Your task to perform on an android device: Open calendar and show me the fourth week of next month Image 0: 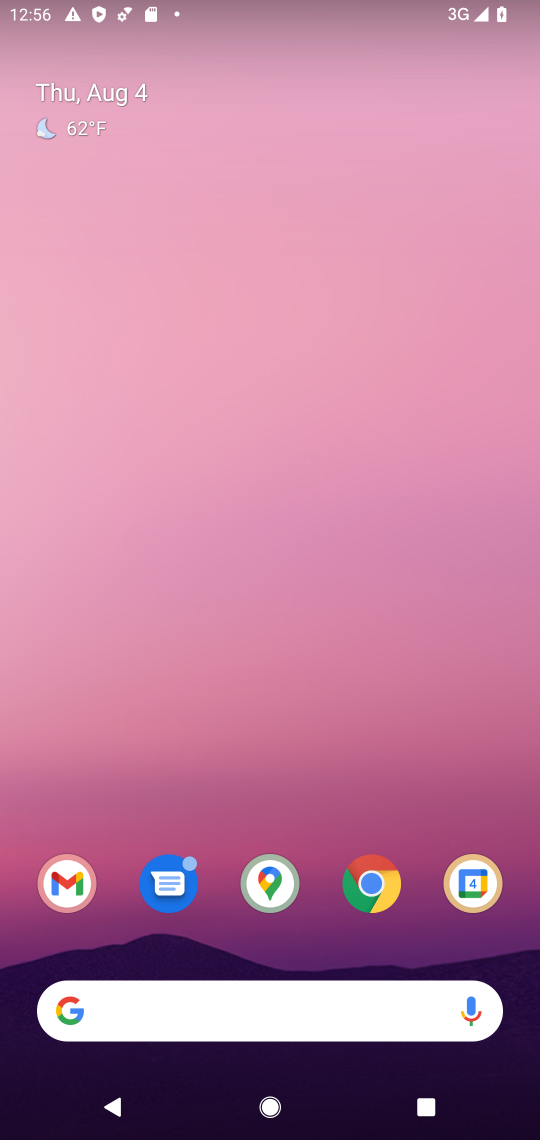
Step 0: drag from (287, 928) to (322, 422)
Your task to perform on an android device: Open calendar and show me the fourth week of next month Image 1: 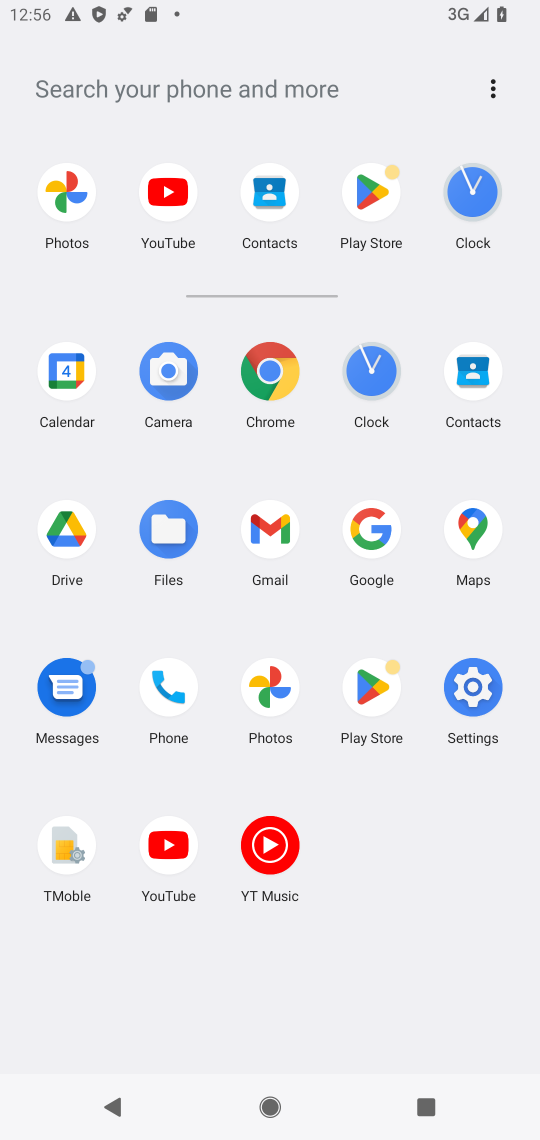
Step 1: click (63, 377)
Your task to perform on an android device: Open calendar and show me the fourth week of next month Image 2: 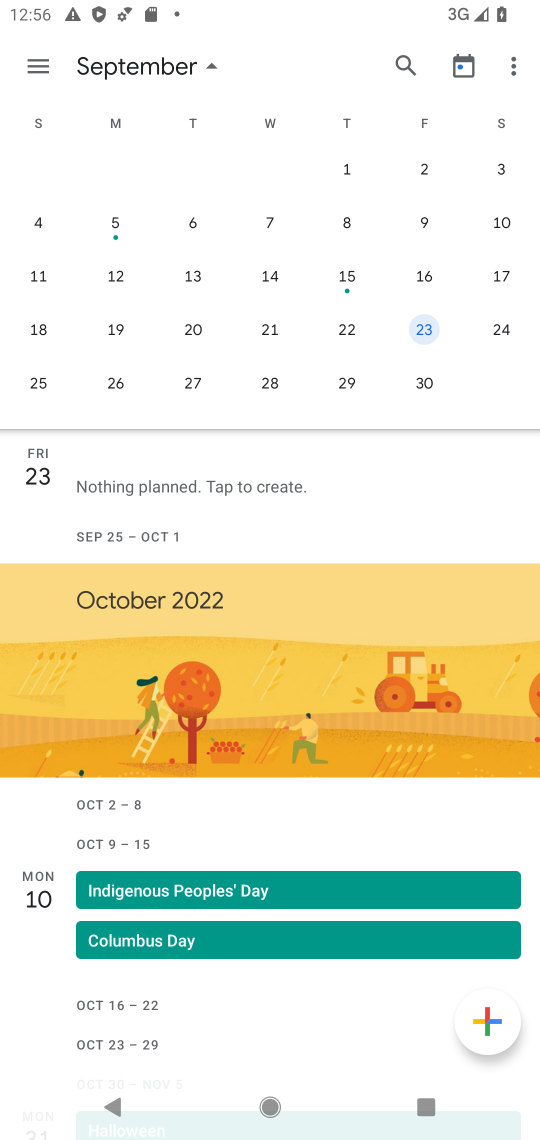
Step 2: drag from (453, 329) to (45, 321)
Your task to perform on an android device: Open calendar and show me the fourth week of next month Image 3: 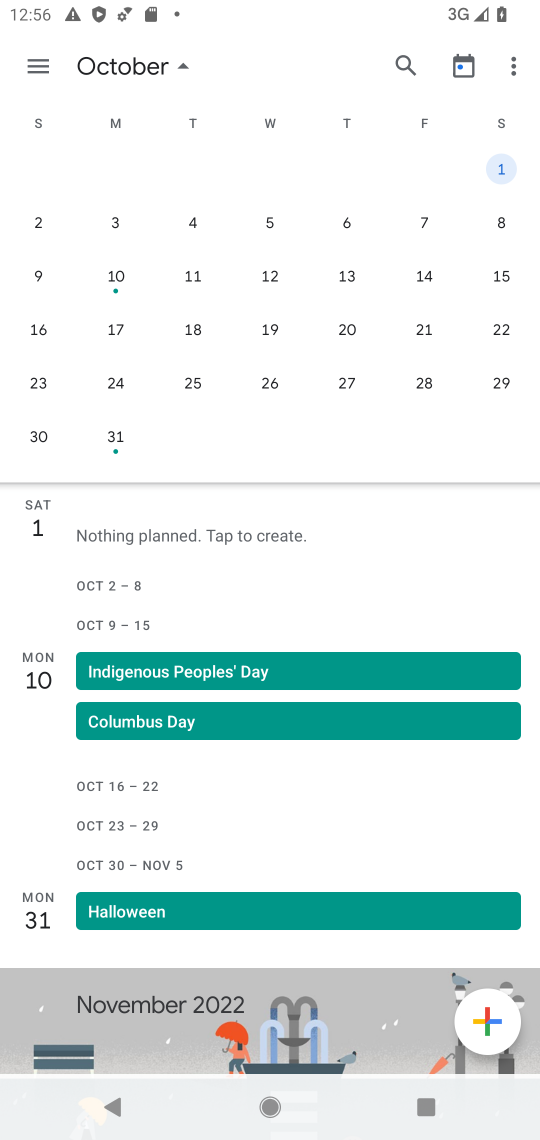
Step 3: drag from (189, 342) to (537, 310)
Your task to perform on an android device: Open calendar and show me the fourth week of next month Image 4: 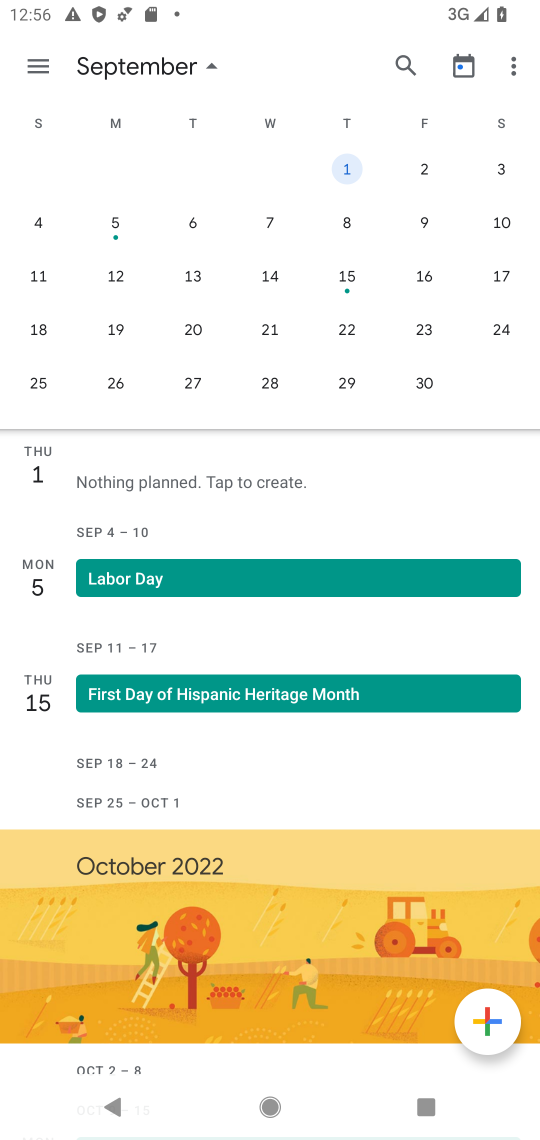
Step 4: click (344, 326)
Your task to perform on an android device: Open calendar and show me the fourth week of next month Image 5: 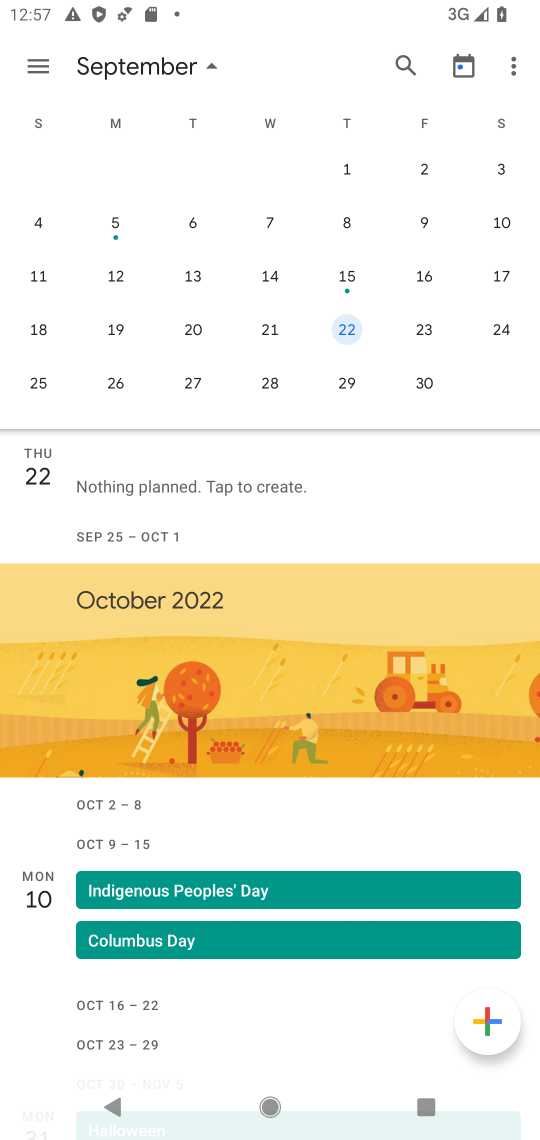
Step 5: click (421, 334)
Your task to perform on an android device: Open calendar and show me the fourth week of next month Image 6: 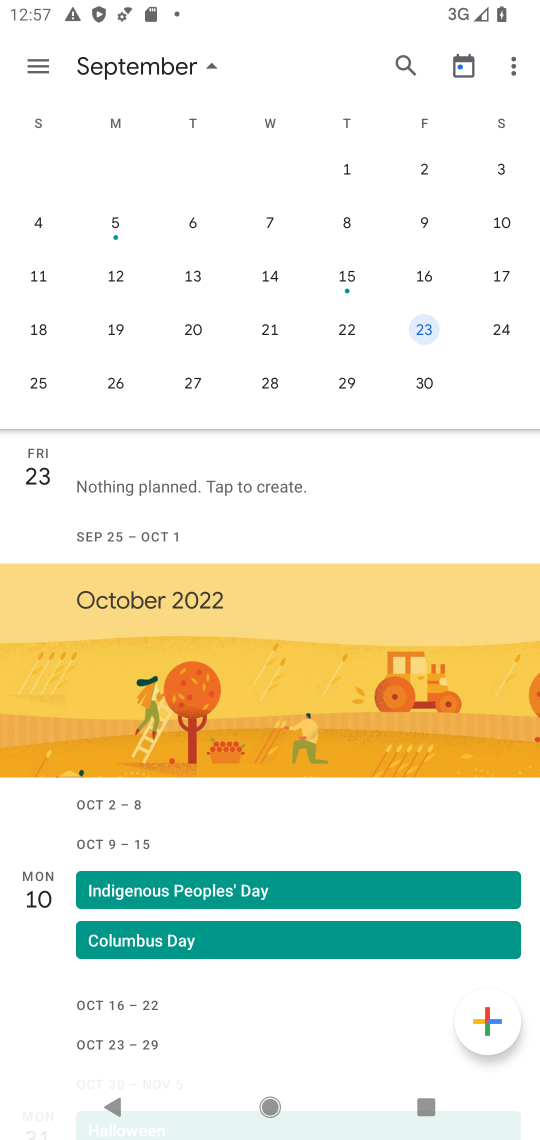
Step 6: task complete